Your task to perform on an android device: change the clock display to show seconds Image 0: 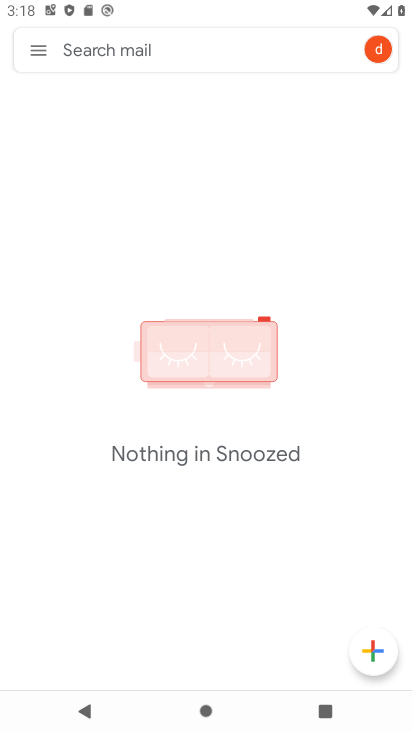
Step 0: press home button
Your task to perform on an android device: change the clock display to show seconds Image 1: 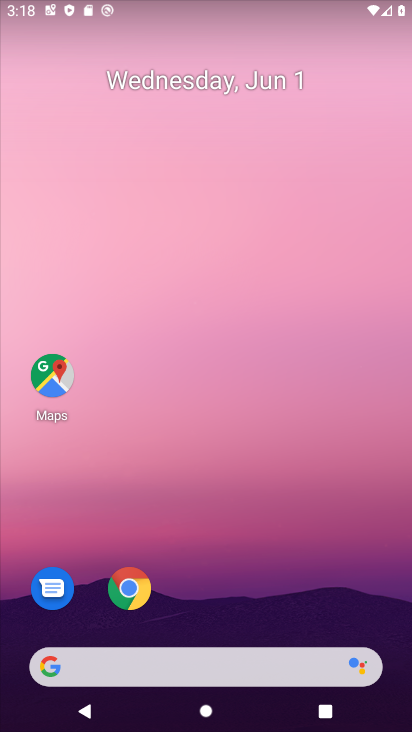
Step 1: drag from (308, 545) to (316, 166)
Your task to perform on an android device: change the clock display to show seconds Image 2: 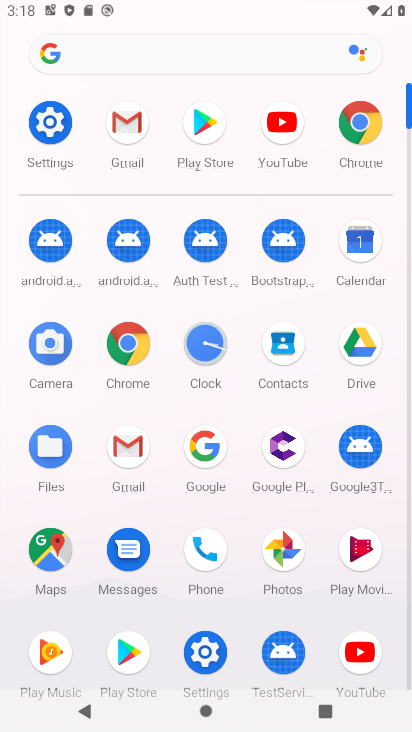
Step 2: click (202, 361)
Your task to perform on an android device: change the clock display to show seconds Image 3: 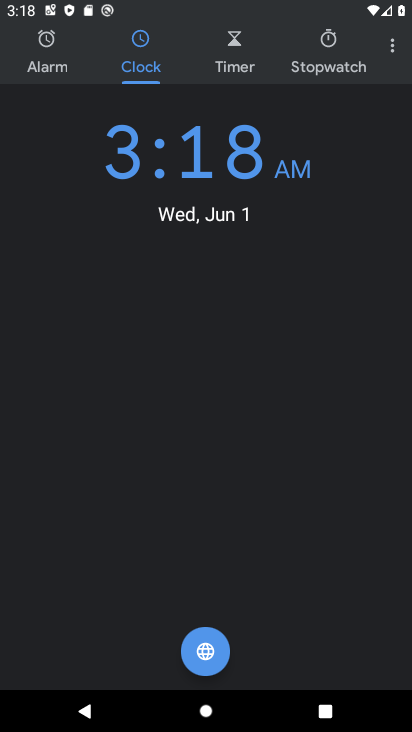
Step 3: click (403, 56)
Your task to perform on an android device: change the clock display to show seconds Image 4: 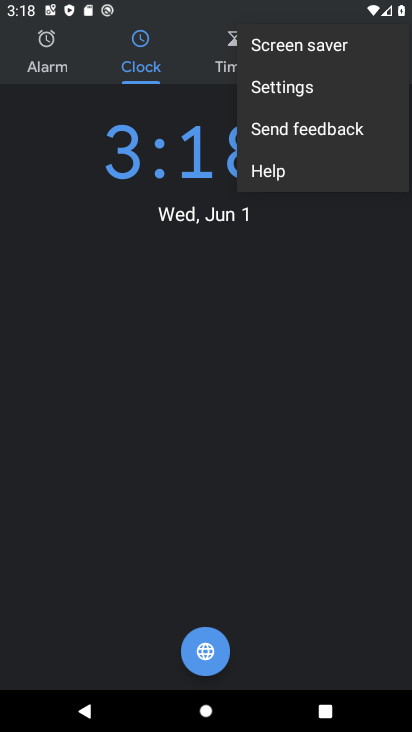
Step 4: click (305, 96)
Your task to perform on an android device: change the clock display to show seconds Image 5: 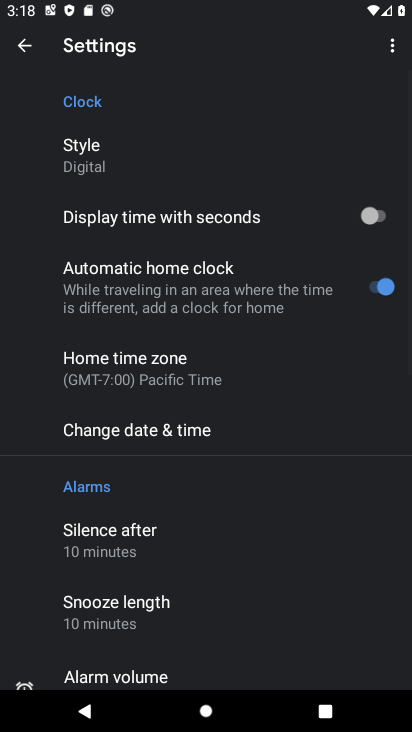
Step 5: click (367, 221)
Your task to perform on an android device: change the clock display to show seconds Image 6: 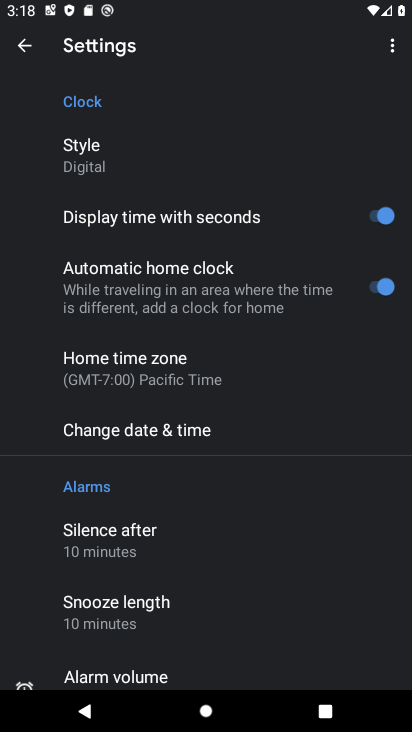
Step 6: task complete